Your task to perform on an android device: open app "Fetch Rewards" (install if not already installed) Image 0: 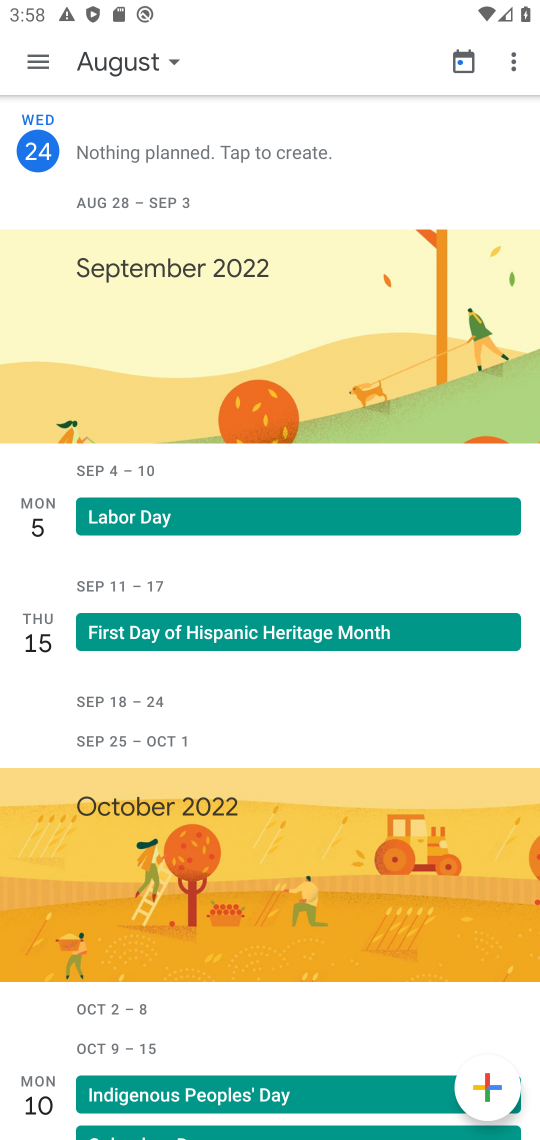
Step 0: task complete